Your task to perform on an android device: turn on notifications settings in the gmail app Image 0: 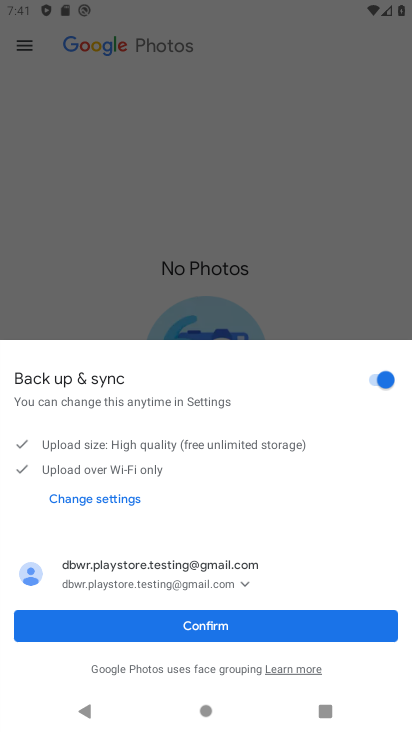
Step 0: click (278, 629)
Your task to perform on an android device: turn on notifications settings in the gmail app Image 1: 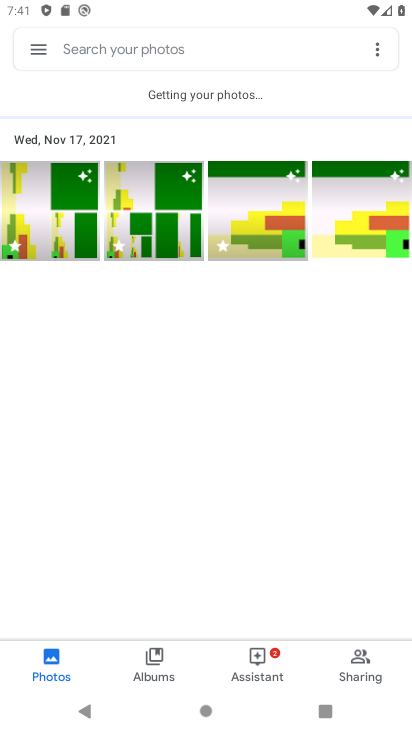
Step 1: click (99, 447)
Your task to perform on an android device: turn on notifications settings in the gmail app Image 2: 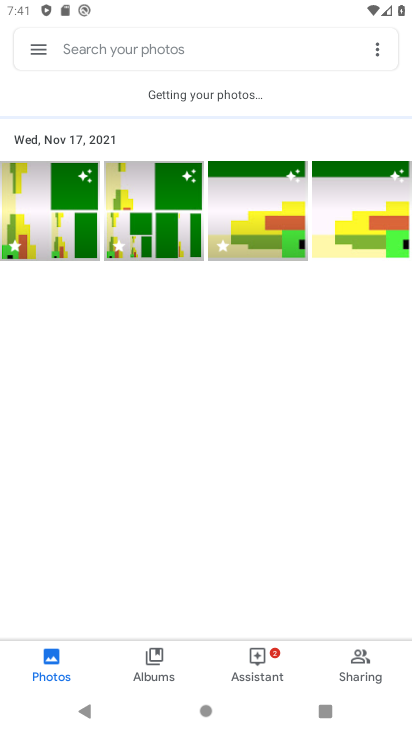
Step 2: press home button
Your task to perform on an android device: turn on notifications settings in the gmail app Image 3: 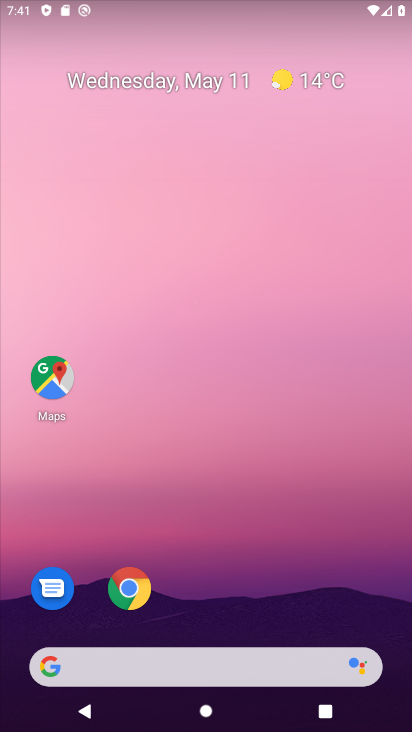
Step 3: drag from (277, 590) to (338, 123)
Your task to perform on an android device: turn on notifications settings in the gmail app Image 4: 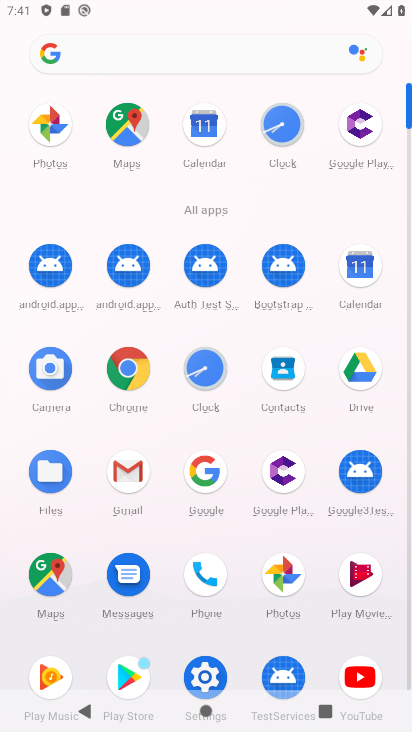
Step 4: click (131, 483)
Your task to perform on an android device: turn on notifications settings in the gmail app Image 5: 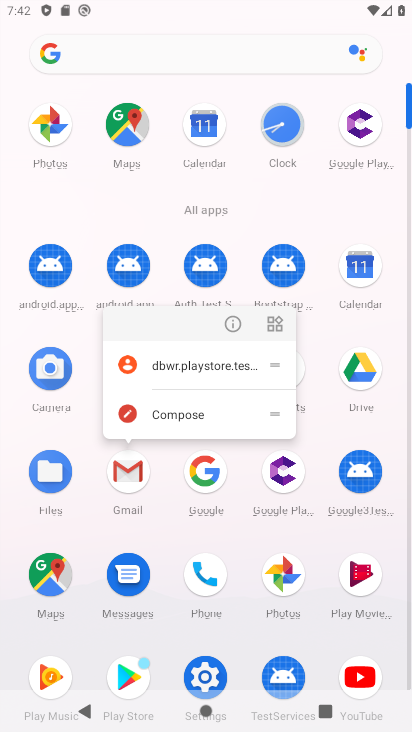
Step 5: click (233, 324)
Your task to perform on an android device: turn on notifications settings in the gmail app Image 6: 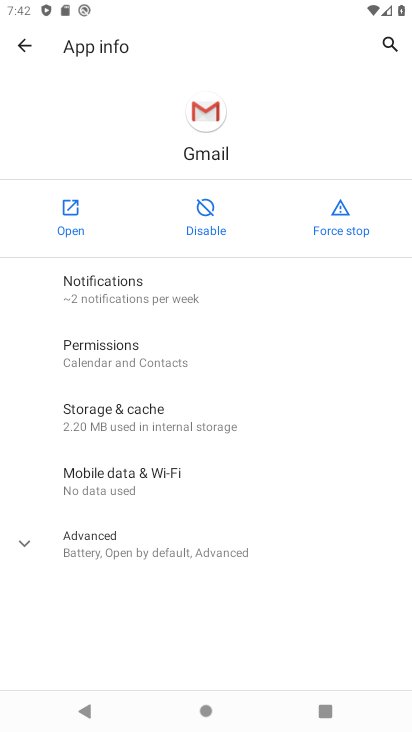
Step 6: click (142, 295)
Your task to perform on an android device: turn on notifications settings in the gmail app Image 7: 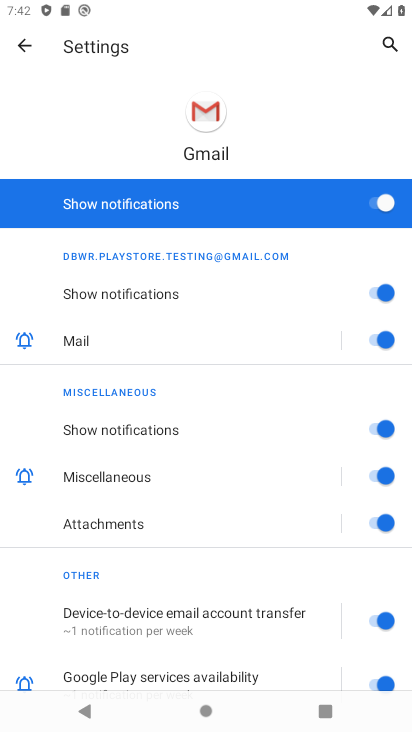
Step 7: task complete